Your task to perform on an android device: check the backup settings in the google photos Image 0: 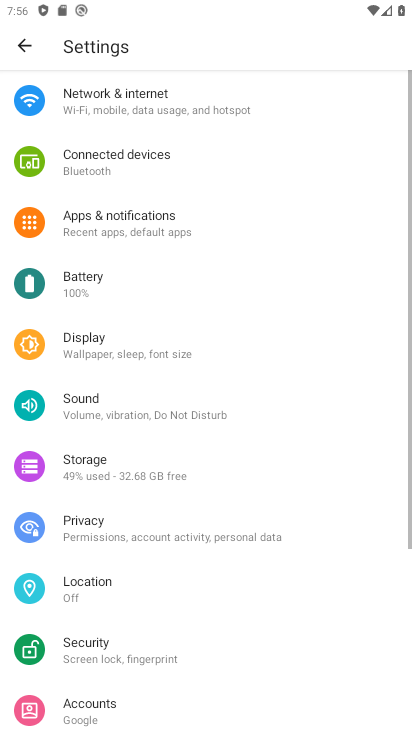
Step 0: press home button
Your task to perform on an android device: check the backup settings in the google photos Image 1: 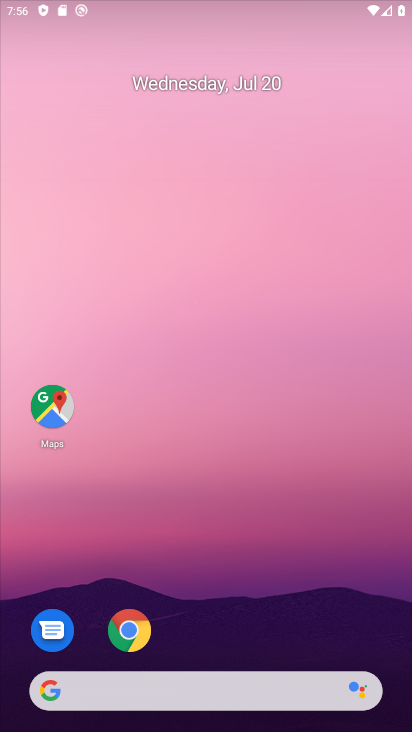
Step 1: drag from (182, 648) to (223, 163)
Your task to perform on an android device: check the backup settings in the google photos Image 2: 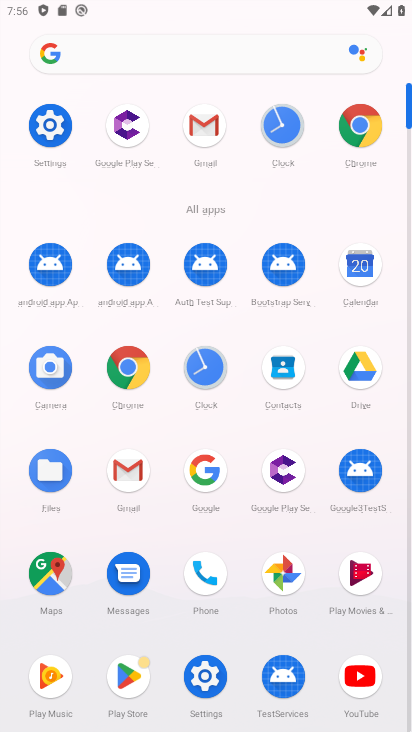
Step 2: click (289, 573)
Your task to perform on an android device: check the backup settings in the google photos Image 3: 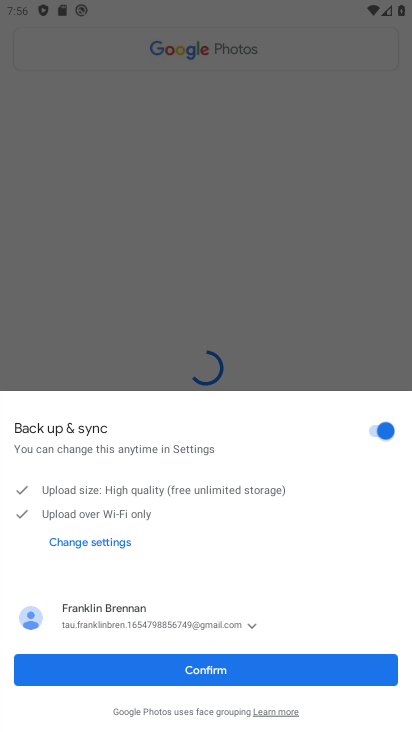
Step 3: click (191, 673)
Your task to perform on an android device: check the backup settings in the google photos Image 4: 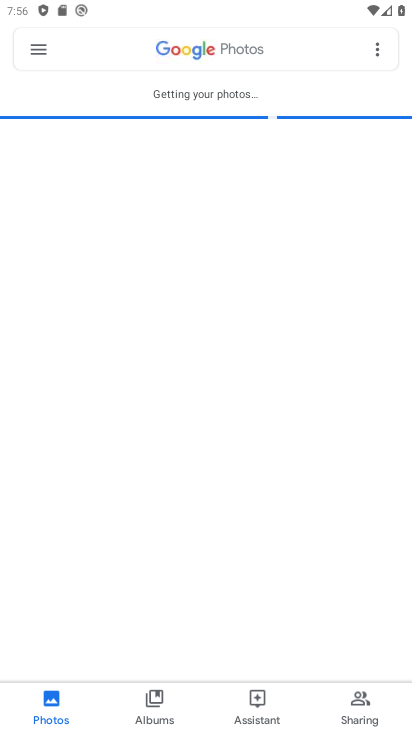
Step 4: click (38, 49)
Your task to perform on an android device: check the backup settings in the google photos Image 5: 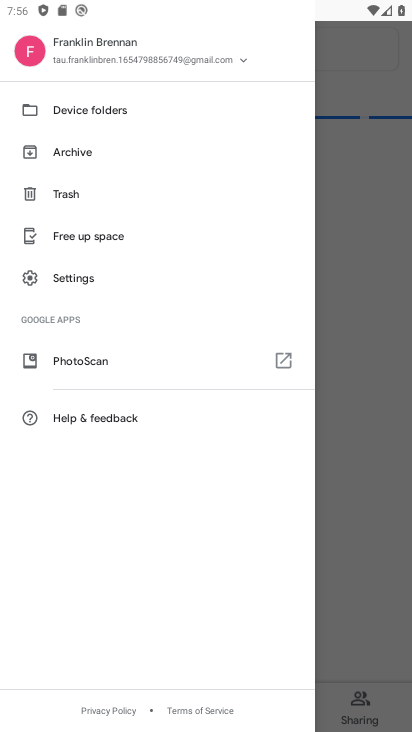
Step 5: click (75, 278)
Your task to perform on an android device: check the backup settings in the google photos Image 6: 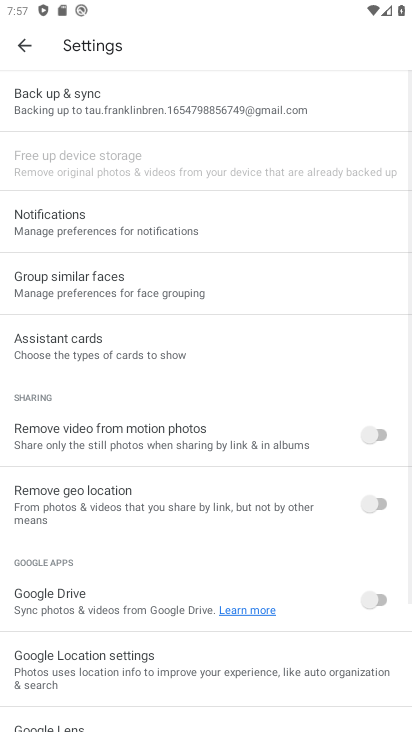
Step 6: click (70, 96)
Your task to perform on an android device: check the backup settings in the google photos Image 7: 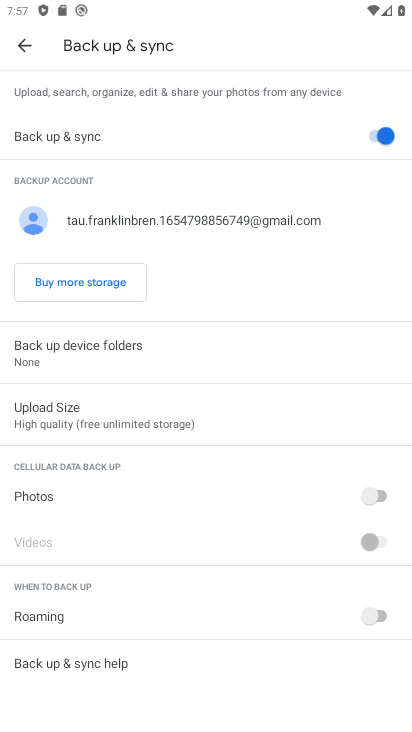
Step 7: task complete